Your task to perform on an android device: Go to location settings Image 0: 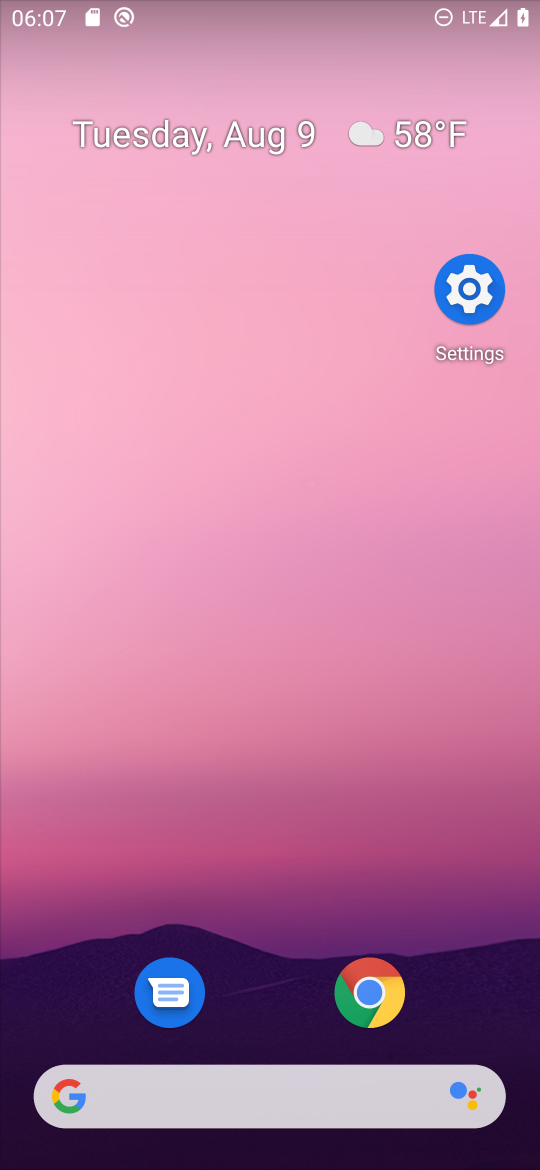
Step 0: drag from (436, 1070) to (384, 10)
Your task to perform on an android device: Go to location settings Image 1: 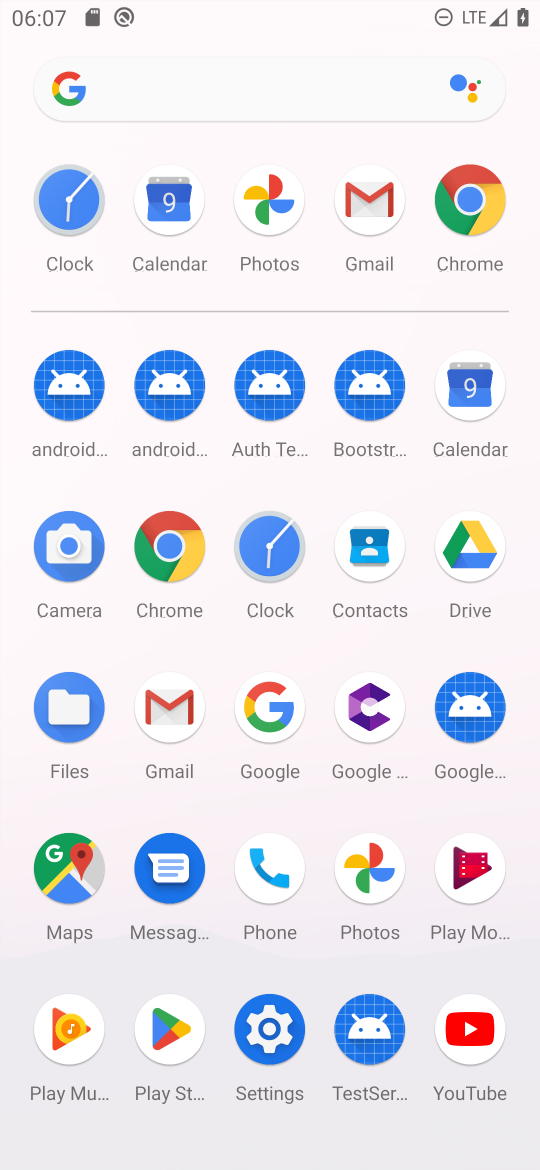
Step 1: click (280, 1045)
Your task to perform on an android device: Go to location settings Image 2: 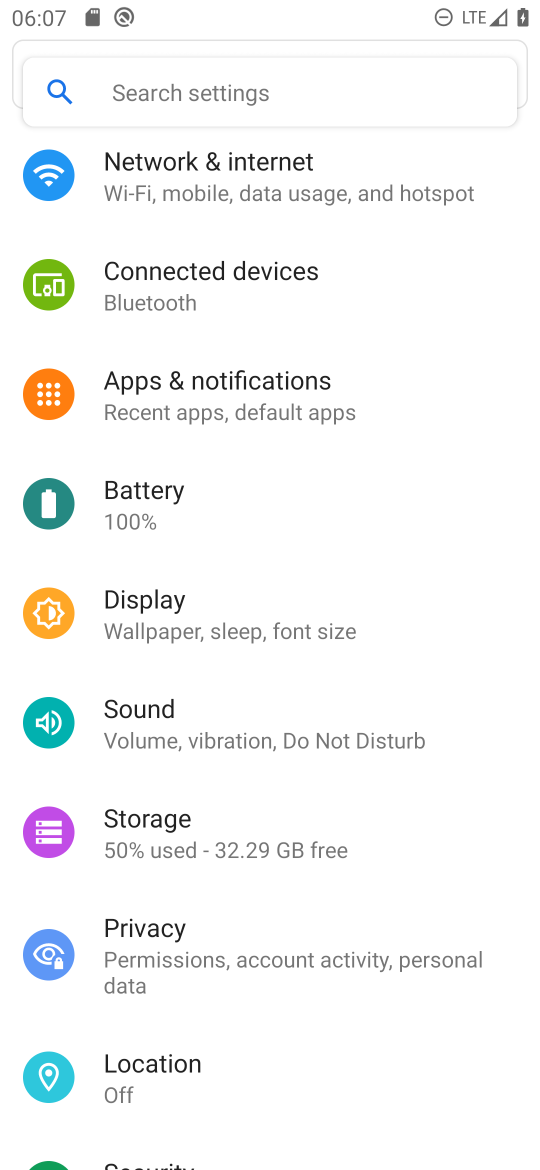
Step 2: click (171, 1086)
Your task to perform on an android device: Go to location settings Image 3: 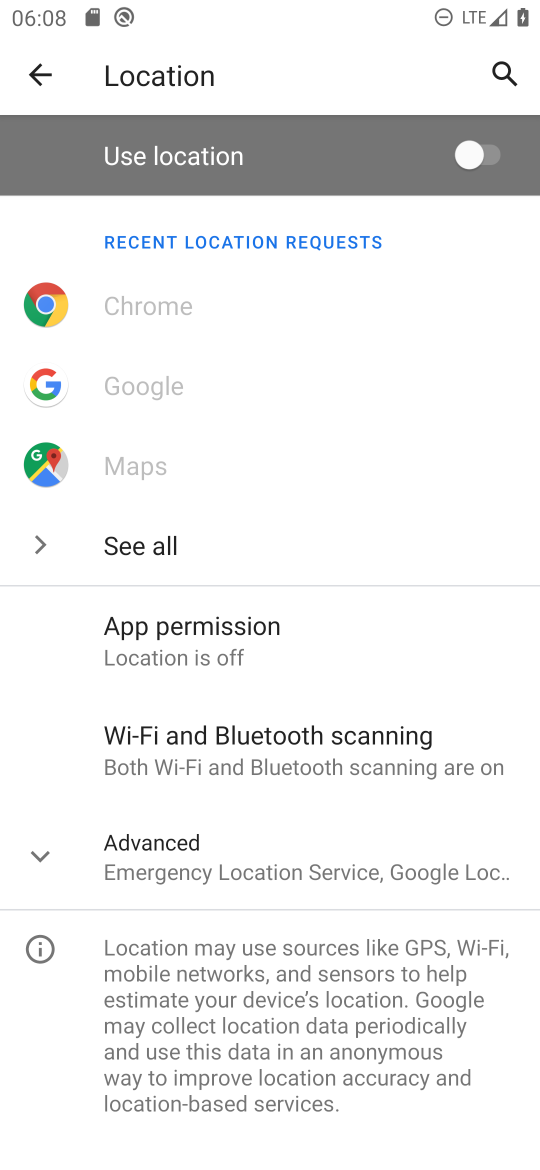
Step 3: click (172, 830)
Your task to perform on an android device: Go to location settings Image 4: 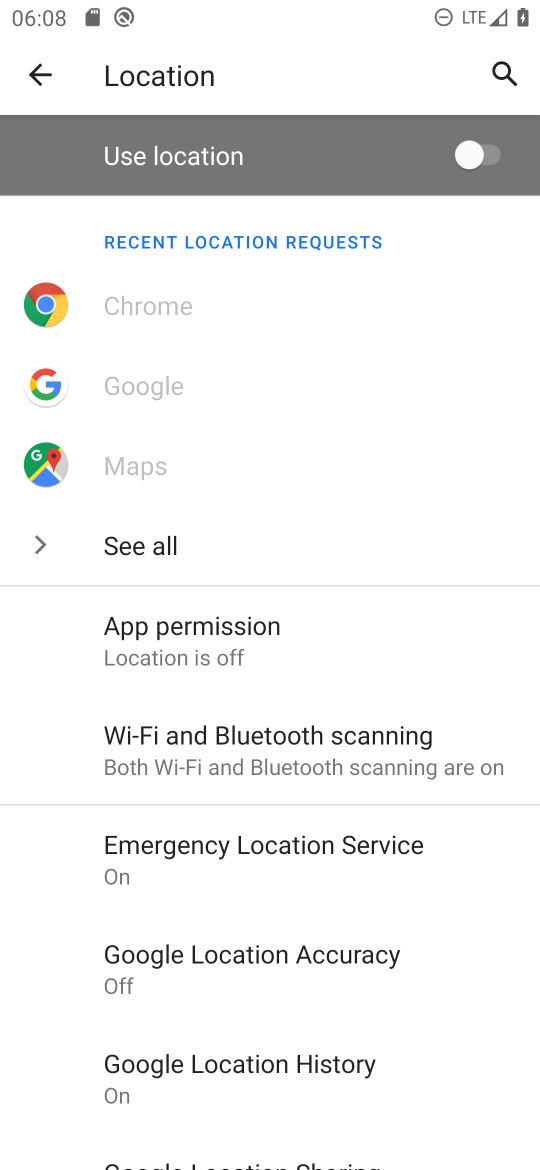
Step 4: task complete